Your task to perform on an android device: Open my contact list Image 0: 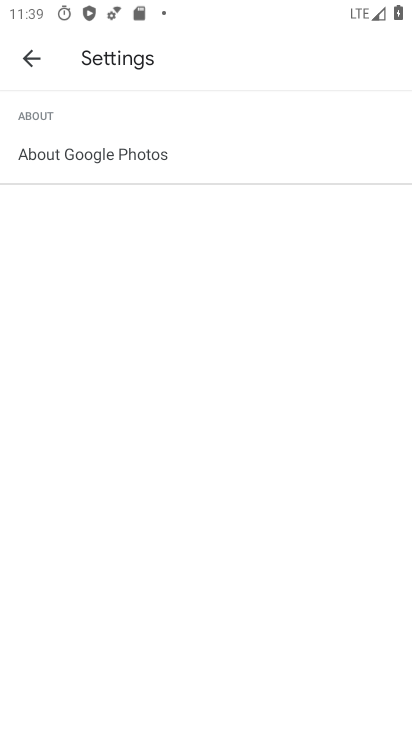
Step 0: press home button
Your task to perform on an android device: Open my contact list Image 1: 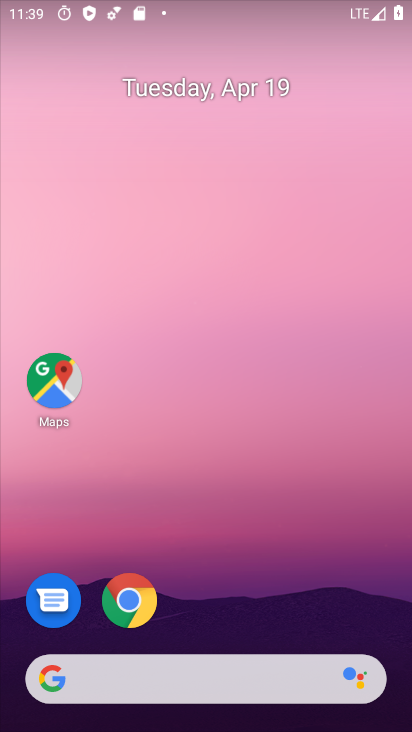
Step 1: drag from (294, 537) to (288, 23)
Your task to perform on an android device: Open my contact list Image 2: 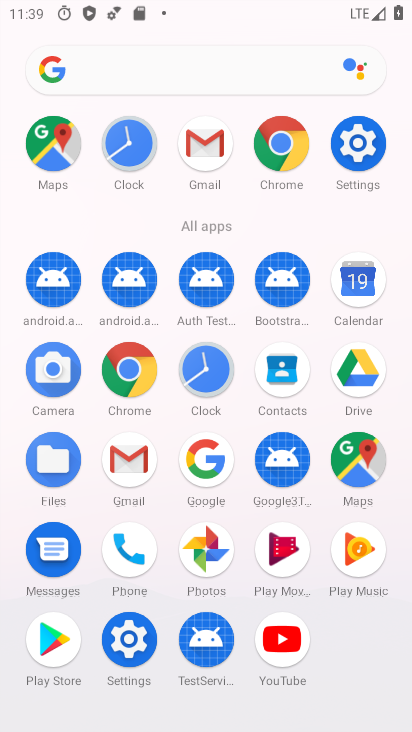
Step 2: click (272, 368)
Your task to perform on an android device: Open my contact list Image 3: 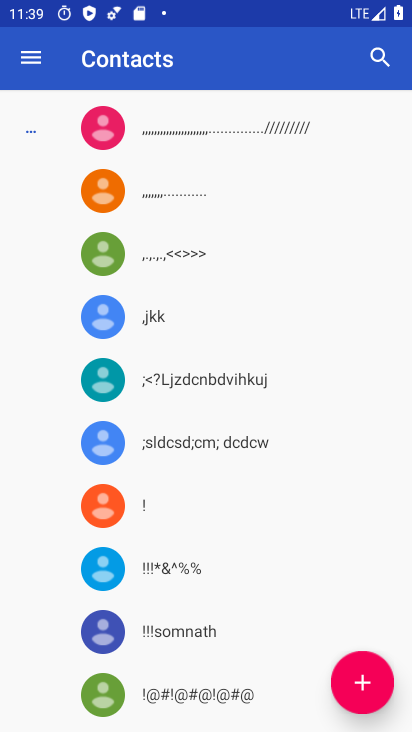
Step 3: task complete